Your task to perform on an android device: Go to Android settings Image 0: 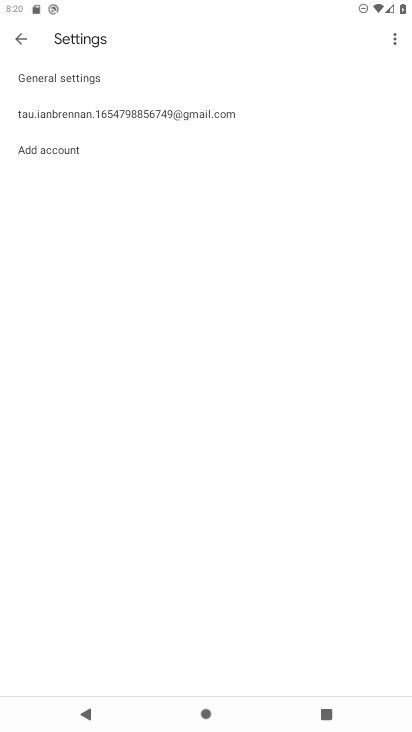
Step 0: press home button
Your task to perform on an android device: Go to Android settings Image 1: 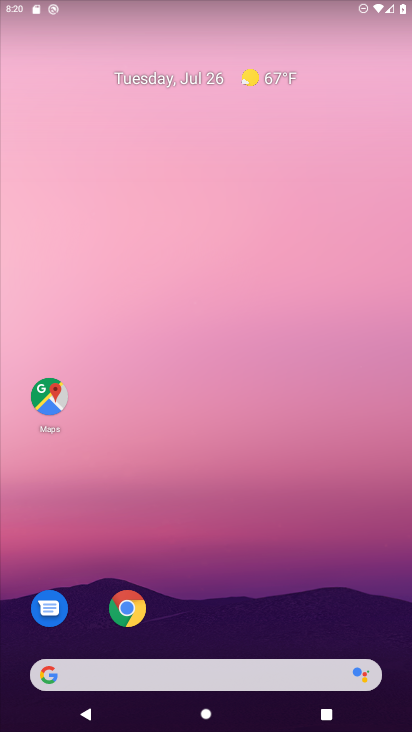
Step 1: drag from (240, 619) to (409, 284)
Your task to perform on an android device: Go to Android settings Image 2: 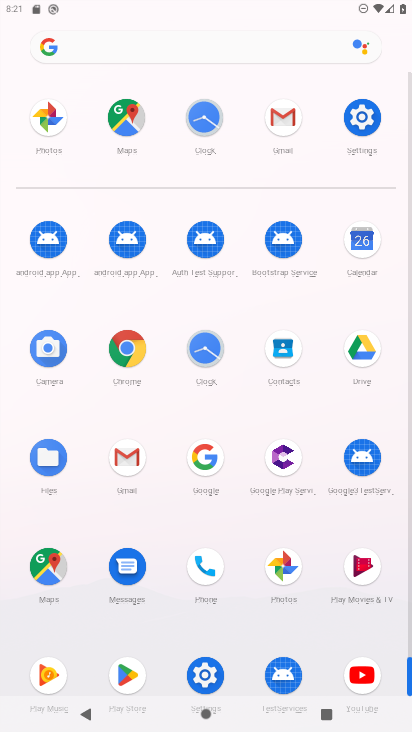
Step 2: click (210, 661)
Your task to perform on an android device: Go to Android settings Image 3: 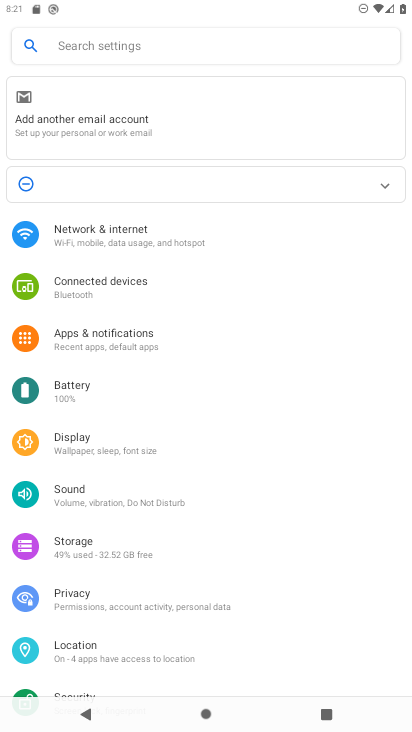
Step 3: drag from (129, 518) to (152, 253)
Your task to perform on an android device: Go to Android settings Image 4: 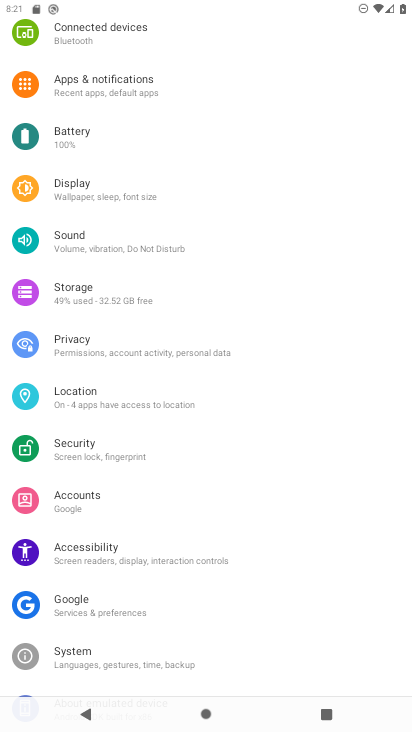
Step 4: drag from (102, 579) to (116, 444)
Your task to perform on an android device: Go to Android settings Image 5: 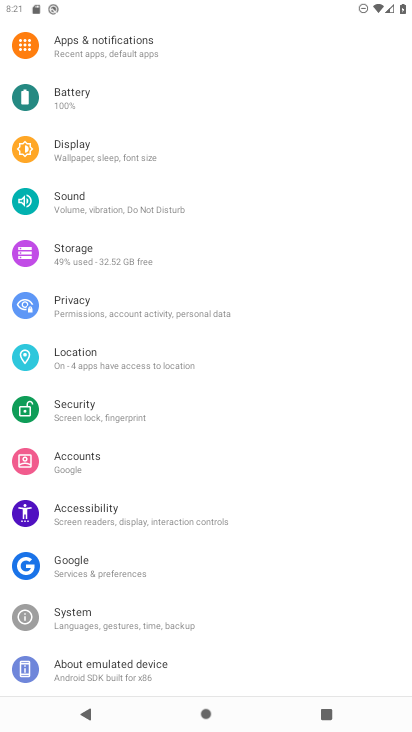
Step 5: drag from (159, 669) to (170, 580)
Your task to perform on an android device: Go to Android settings Image 6: 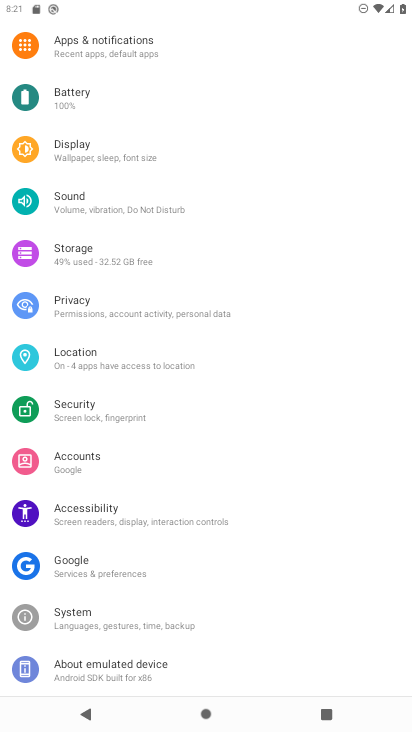
Step 6: click (141, 664)
Your task to perform on an android device: Go to Android settings Image 7: 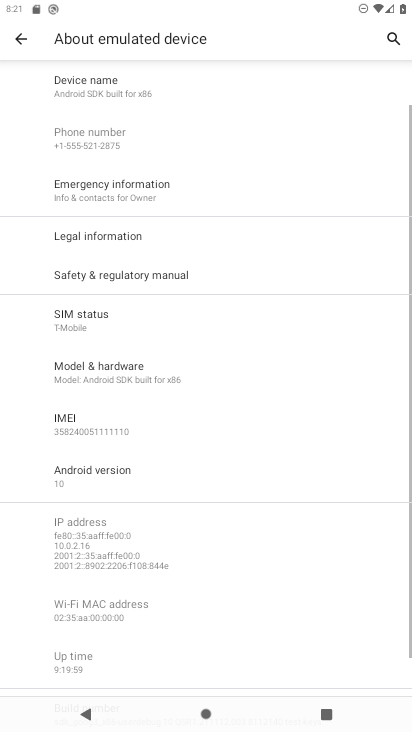
Step 7: click (92, 477)
Your task to perform on an android device: Go to Android settings Image 8: 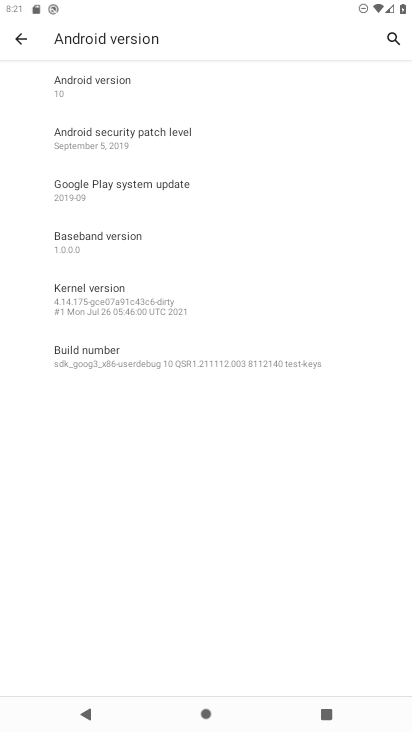
Step 8: task complete